Your task to perform on an android device: toggle improve location accuracy Image 0: 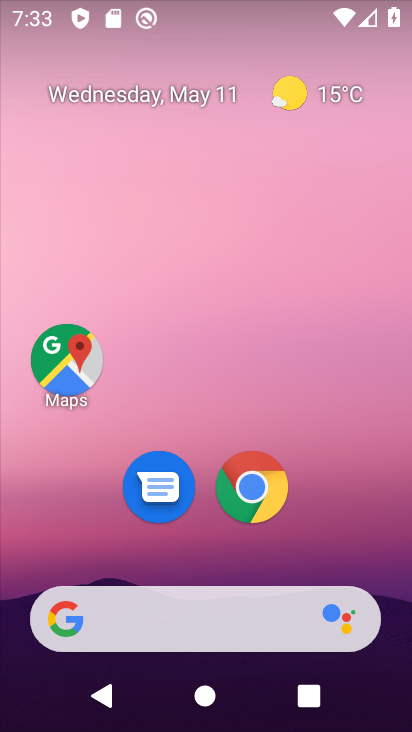
Step 0: drag from (284, 606) to (229, 142)
Your task to perform on an android device: toggle improve location accuracy Image 1: 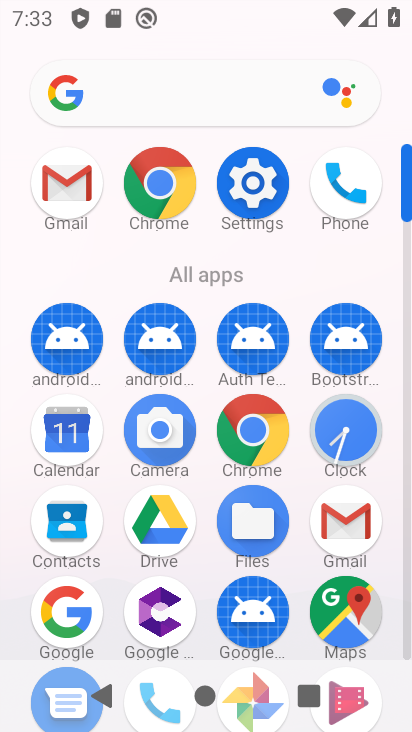
Step 1: click (241, 203)
Your task to perform on an android device: toggle improve location accuracy Image 2: 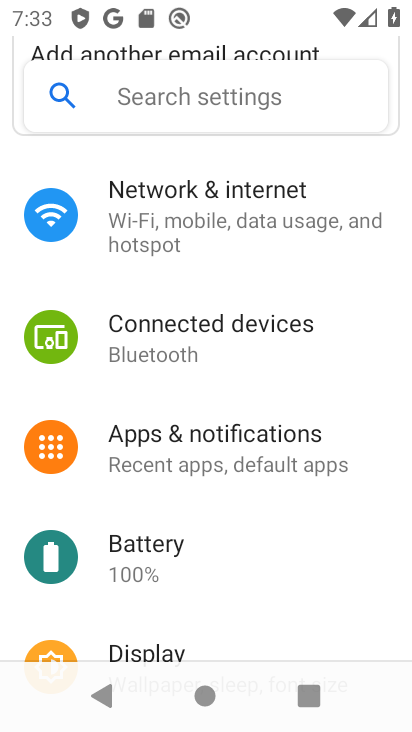
Step 2: click (202, 91)
Your task to perform on an android device: toggle improve location accuracy Image 3: 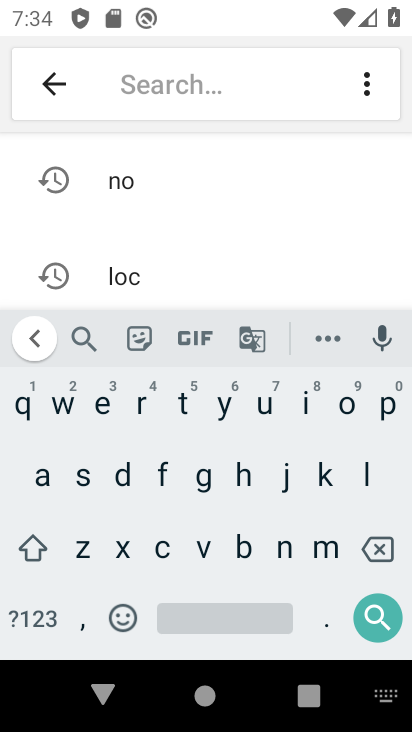
Step 3: click (153, 276)
Your task to perform on an android device: toggle improve location accuracy Image 4: 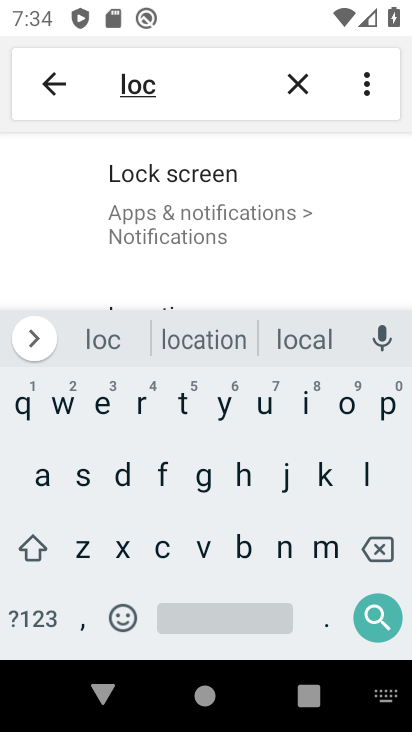
Step 4: drag from (187, 252) to (201, 185)
Your task to perform on an android device: toggle improve location accuracy Image 5: 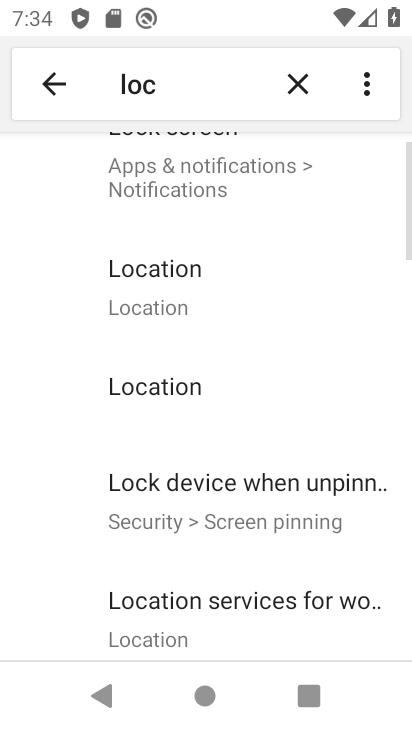
Step 5: click (158, 295)
Your task to perform on an android device: toggle improve location accuracy Image 6: 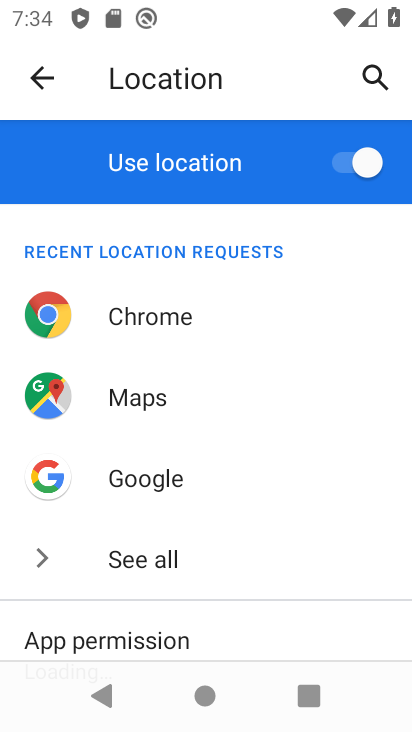
Step 6: drag from (297, 514) to (330, 213)
Your task to perform on an android device: toggle improve location accuracy Image 7: 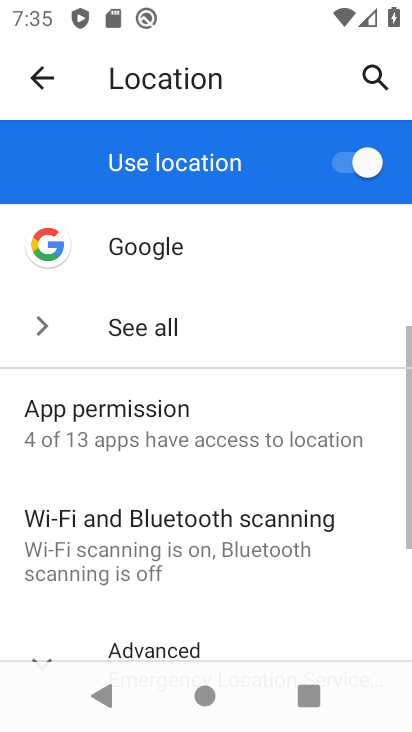
Step 7: drag from (182, 545) to (274, 170)
Your task to perform on an android device: toggle improve location accuracy Image 8: 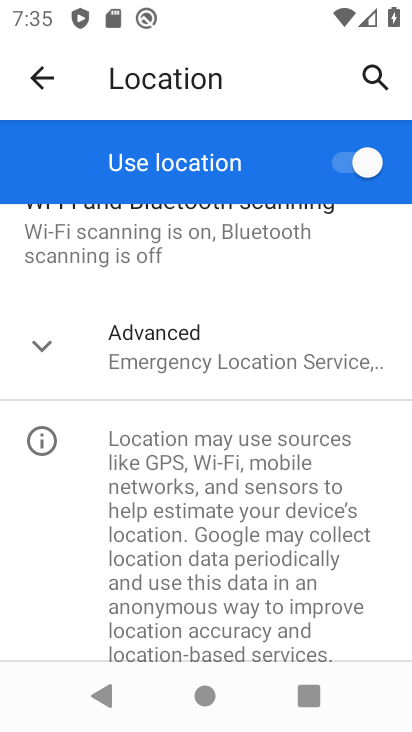
Step 8: click (128, 358)
Your task to perform on an android device: toggle improve location accuracy Image 9: 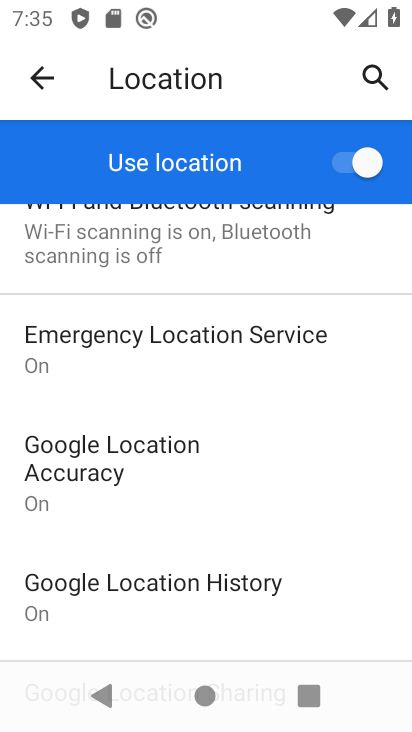
Step 9: click (173, 427)
Your task to perform on an android device: toggle improve location accuracy Image 10: 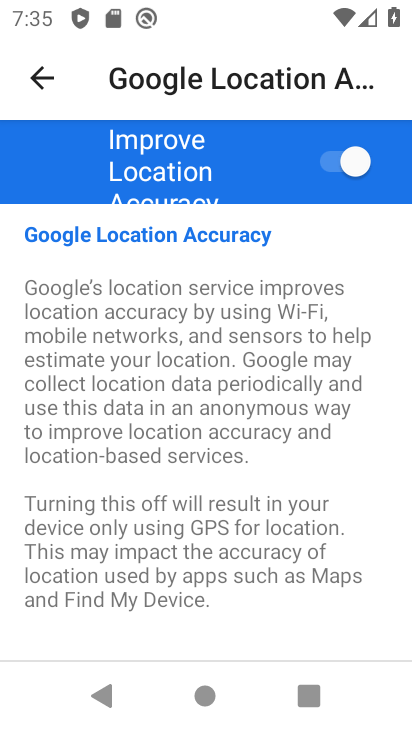
Step 10: task complete